Your task to perform on an android device: Search for pizza restaurants on Maps Image 0: 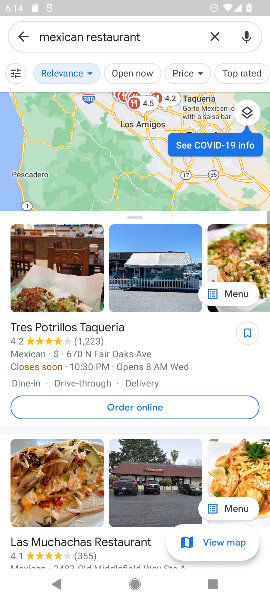
Step 0: press home button
Your task to perform on an android device: Search for pizza restaurants on Maps Image 1: 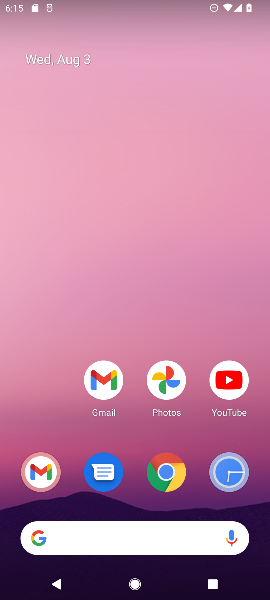
Step 1: drag from (219, 496) to (116, 5)
Your task to perform on an android device: Search for pizza restaurants on Maps Image 2: 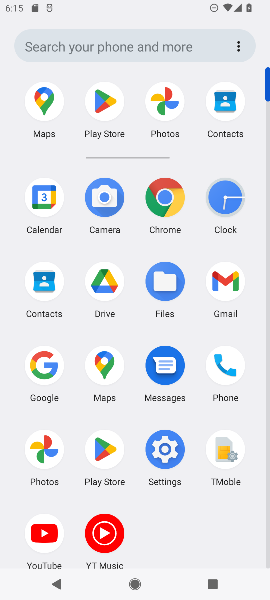
Step 2: click (88, 368)
Your task to perform on an android device: Search for pizza restaurants on Maps Image 3: 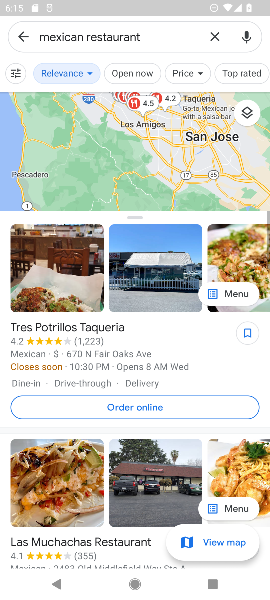
Step 3: press back button
Your task to perform on an android device: Search for pizza restaurants on Maps Image 4: 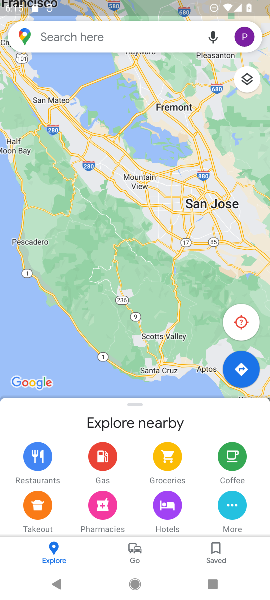
Step 4: click (81, 34)
Your task to perform on an android device: Search for pizza restaurants on Maps Image 5: 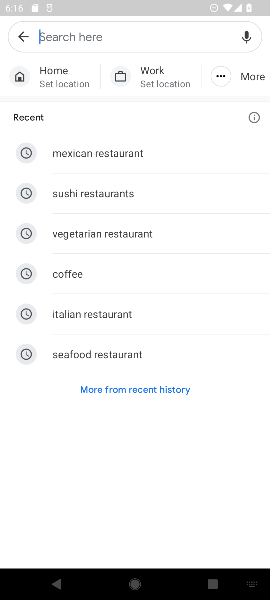
Step 5: type "pizza restaurants"
Your task to perform on an android device: Search for pizza restaurants on Maps Image 6: 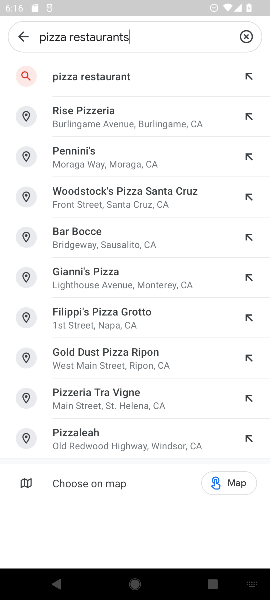
Step 6: click (91, 75)
Your task to perform on an android device: Search for pizza restaurants on Maps Image 7: 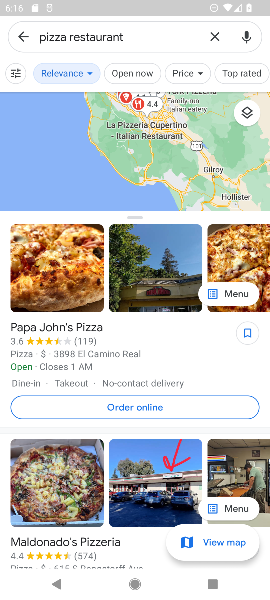
Step 7: task complete